Your task to perform on an android device: Open Wikipedia Image 0: 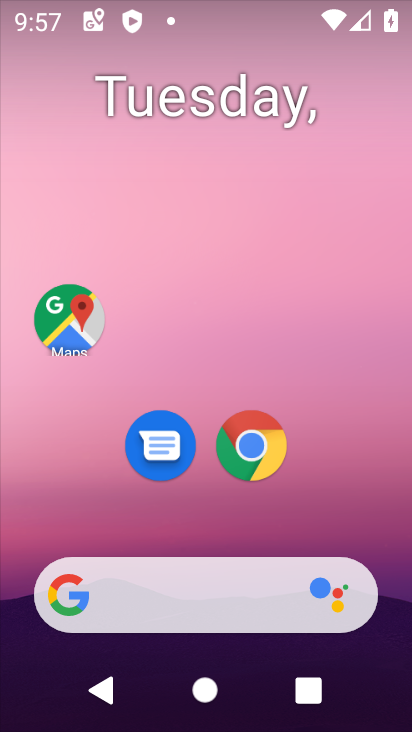
Step 0: click (268, 427)
Your task to perform on an android device: Open Wikipedia Image 1: 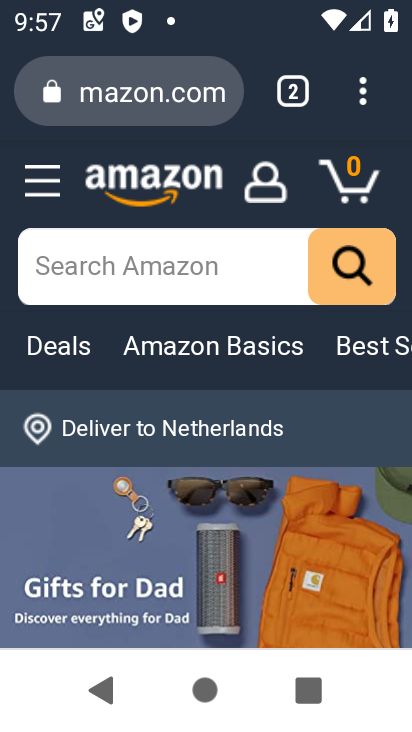
Step 1: click (306, 101)
Your task to perform on an android device: Open Wikipedia Image 2: 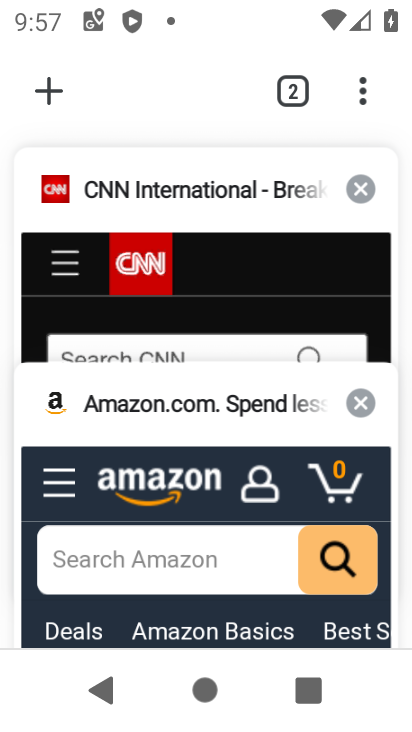
Step 2: click (54, 104)
Your task to perform on an android device: Open Wikipedia Image 3: 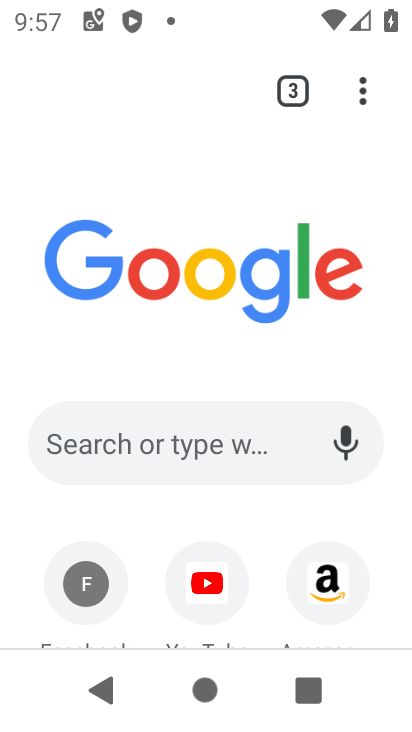
Step 3: drag from (398, 551) to (398, 179)
Your task to perform on an android device: Open Wikipedia Image 4: 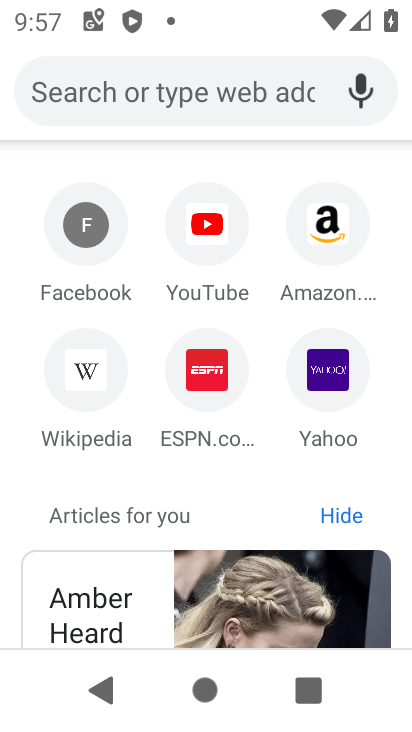
Step 4: click (85, 397)
Your task to perform on an android device: Open Wikipedia Image 5: 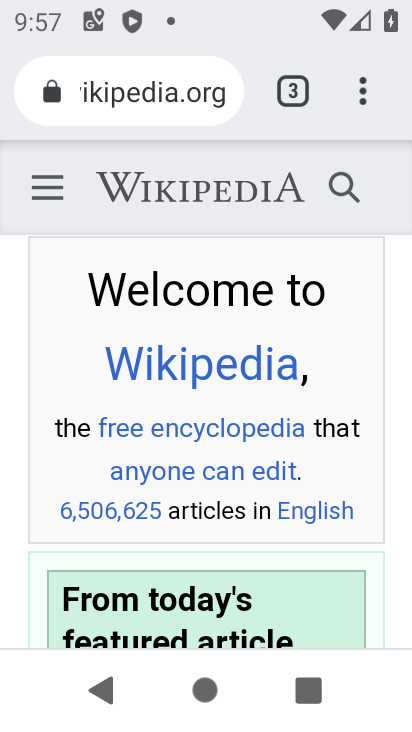
Step 5: task complete